Your task to perform on an android device: What's the weather? Image 0: 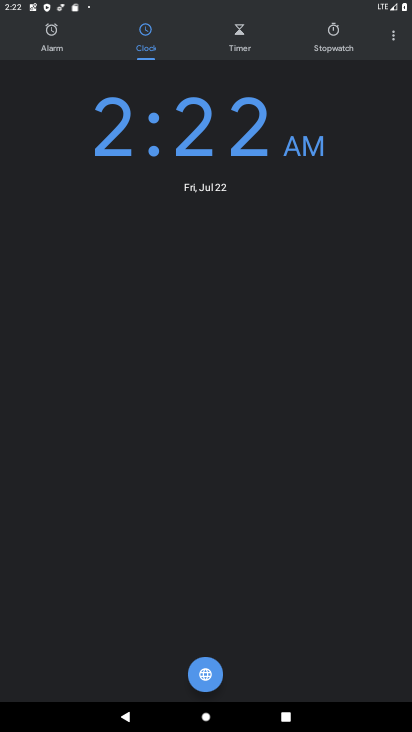
Step 0: press home button
Your task to perform on an android device: What's the weather? Image 1: 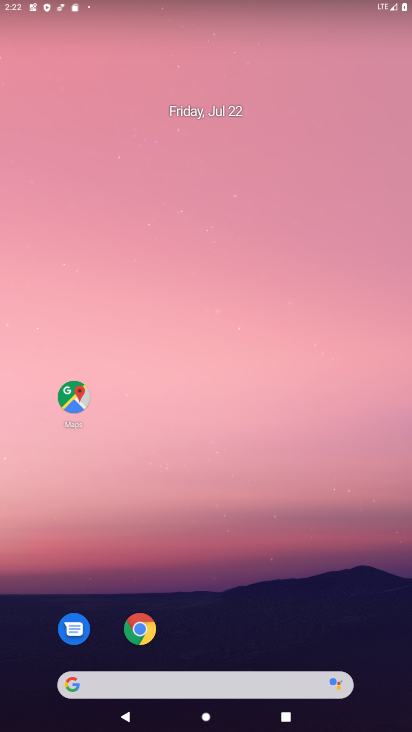
Step 1: click (133, 630)
Your task to perform on an android device: What's the weather? Image 2: 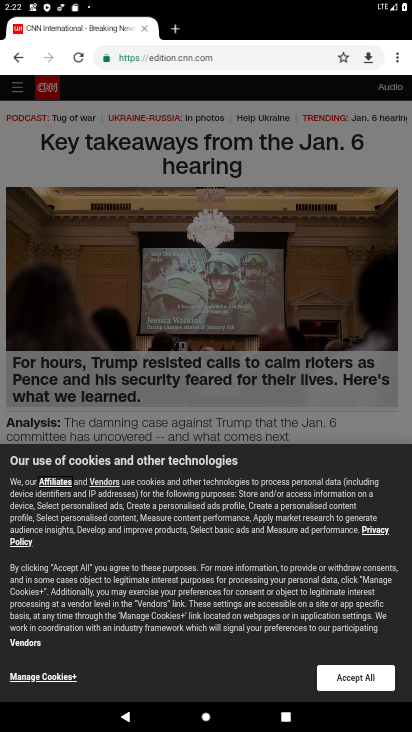
Step 2: click (212, 66)
Your task to perform on an android device: What's the weather? Image 3: 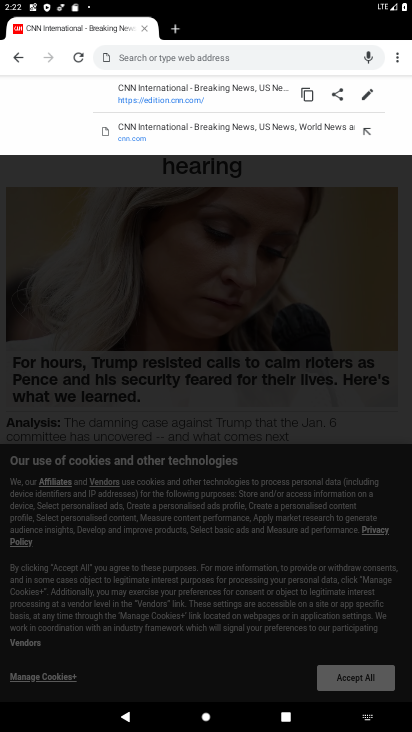
Step 3: type "weather"
Your task to perform on an android device: What's the weather? Image 4: 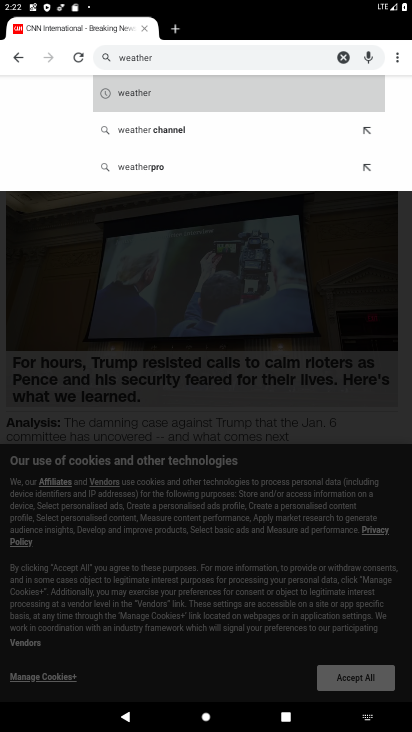
Step 4: click (222, 88)
Your task to perform on an android device: What's the weather? Image 5: 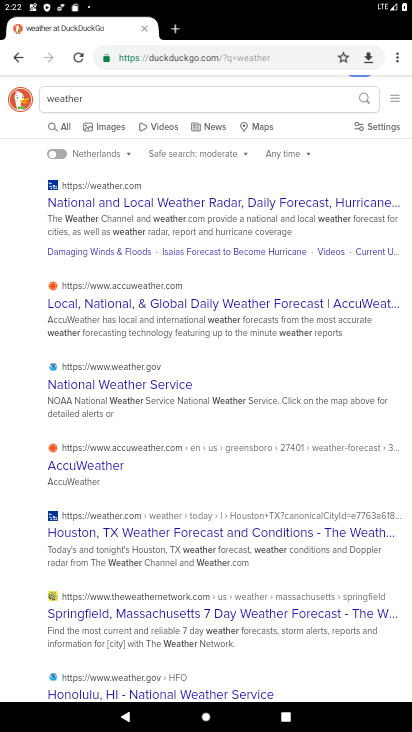
Step 5: task complete